Your task to perform on an android device: snooze an email in the gmail app Image 0: 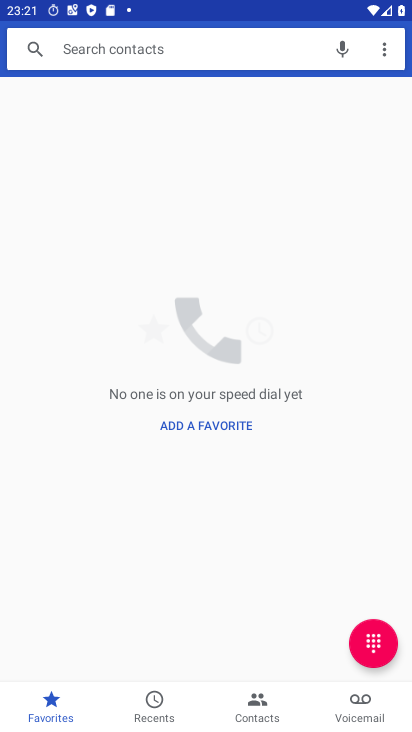
Step 0: press home button
Your task to perform on an android device: snooze an email in the gmail app Image 1: 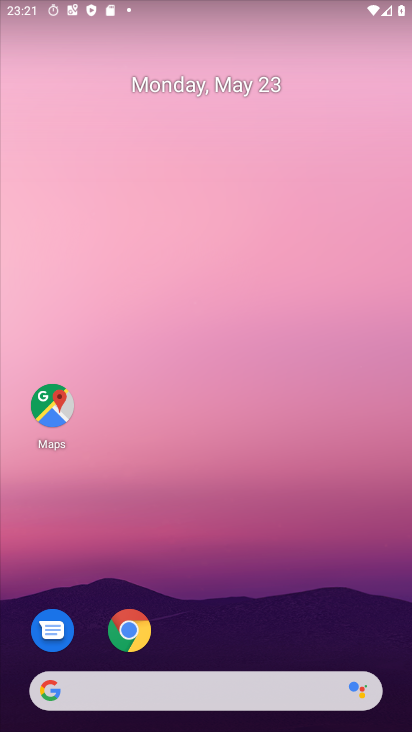
Step 1: drag from (224, 646) to (266, 0)
Your task to perform on an android device: snooze an email in the gmail app Image 2: 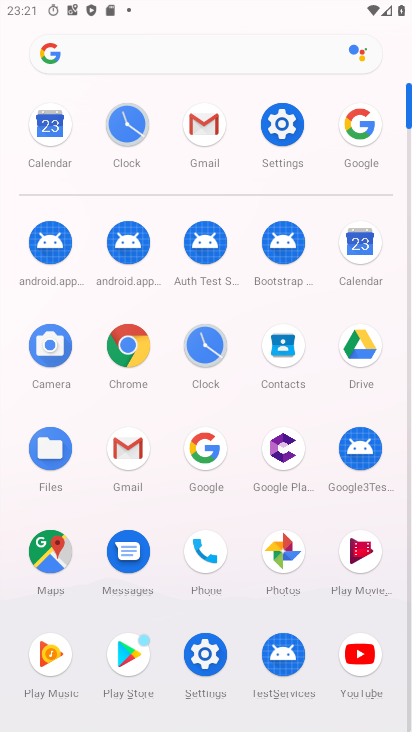
Step 2: click (195, 123)
Your task to perform on an android device: snooze an email in the gmail app Image 3: 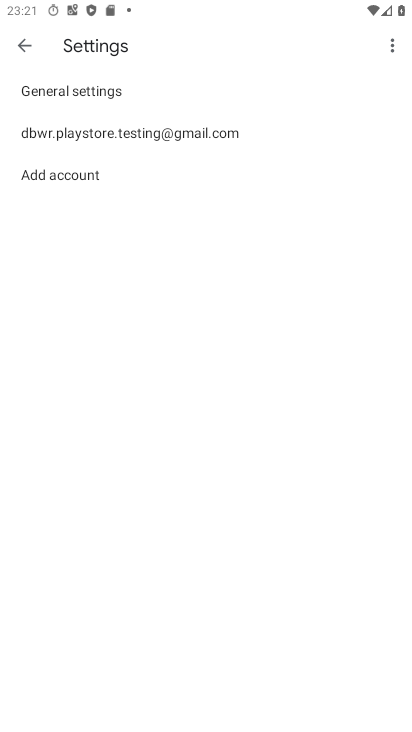
Step 3: click (29, 47)
Your task to perform on an android device: snooze an email in the gmail app Image 4: 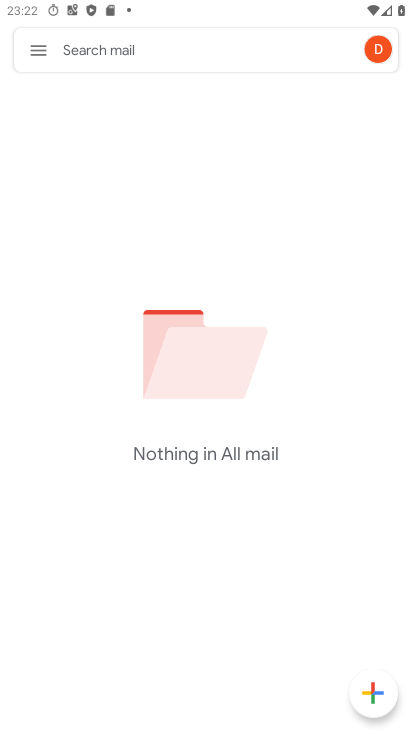
Step 4: task complete